Your task to perform on an android device: toggle priority inbox in the gmail app Image 0: 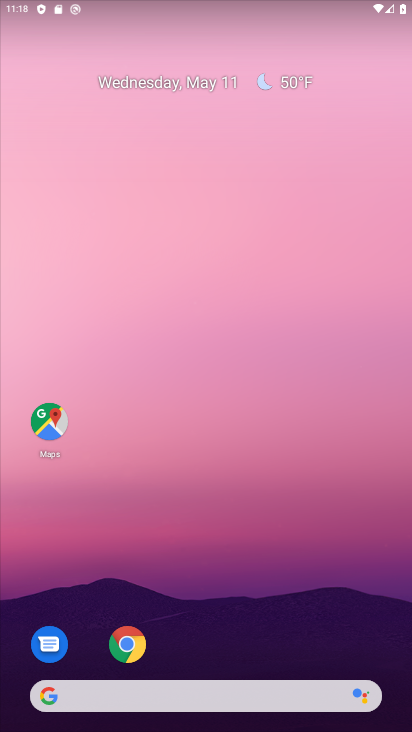
Step 0: drag from (254, 585) to (203, 83)
Your task to perform on an android device: toggle priority inbox in the gmail app Image 1: 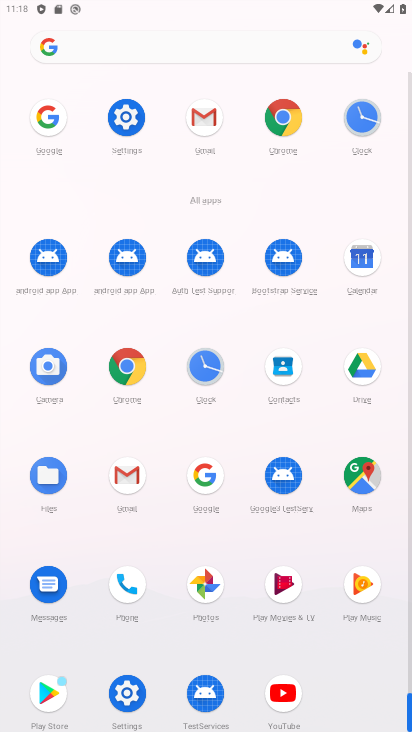
Step 1: click (206, 112)
Your task to perform on an android device: toggle priority inbox in the gmail app Image 2: 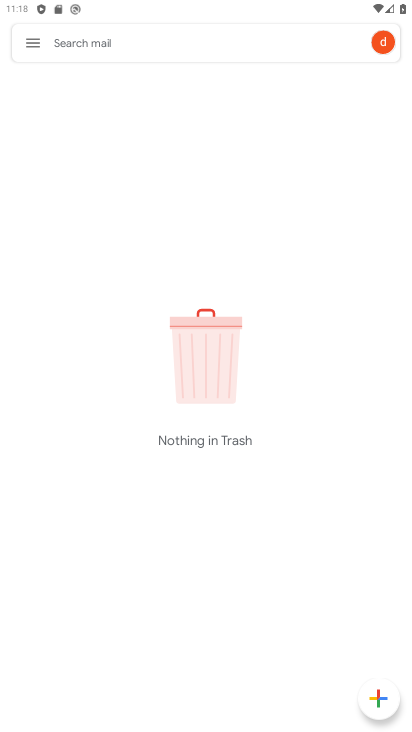
Step 2: click (35, 45)
Your task to perform on an android device: toggle priority inbox in the gmail app Image 3: 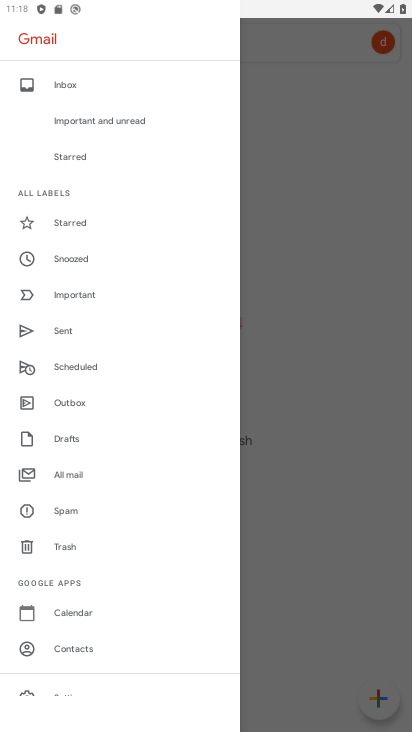
Step 3: drag from (69, 604) to (105, 140)
Your task to perform on an android device: toggle priority inbox in the gmail app Image 4: 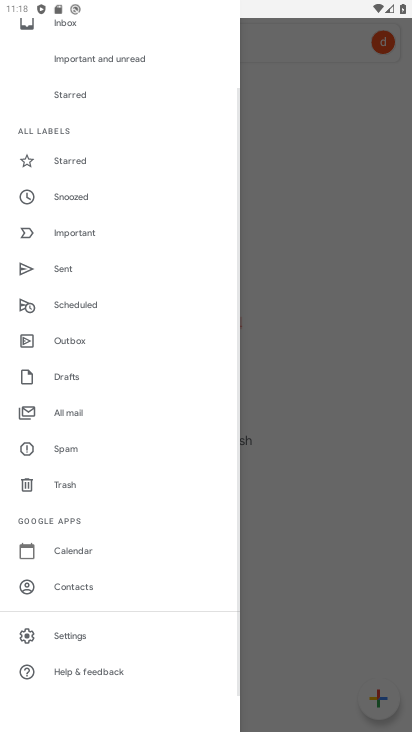
Step 4: click (56, 646)
Your task to perform on an android device: toggle priority inbox in the gmail app Image 5: 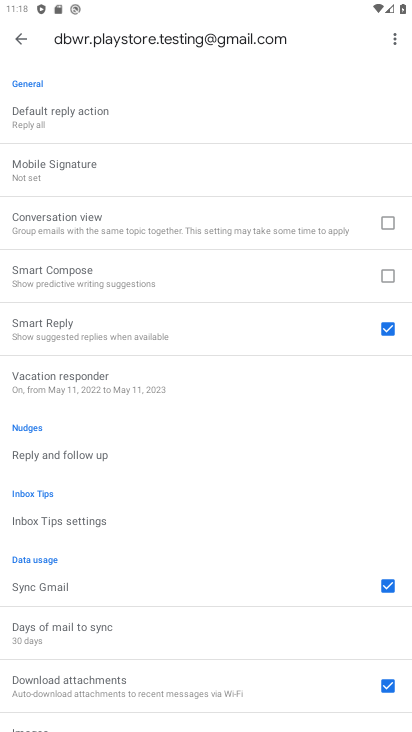
Step 5: drag from (120, 443) to (119, 677)
Your task to perform on an android device: toggle priority inbox in the gmail app Image 6: 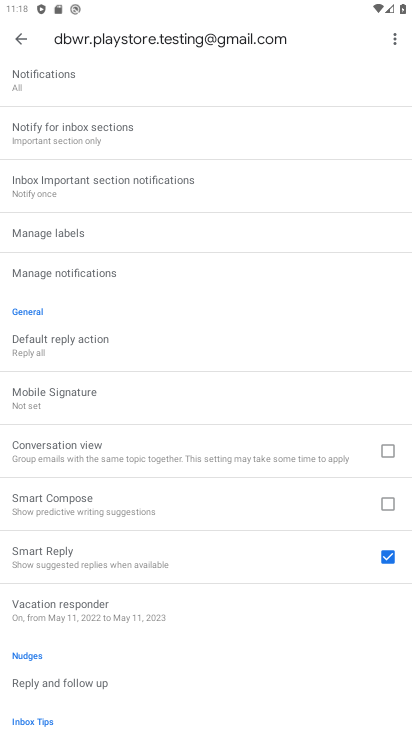
Step 6: drag from (172, 163) to (117, 614)
Your task to perform on an android device: toggle priority inbox in the gmail app Image 7: 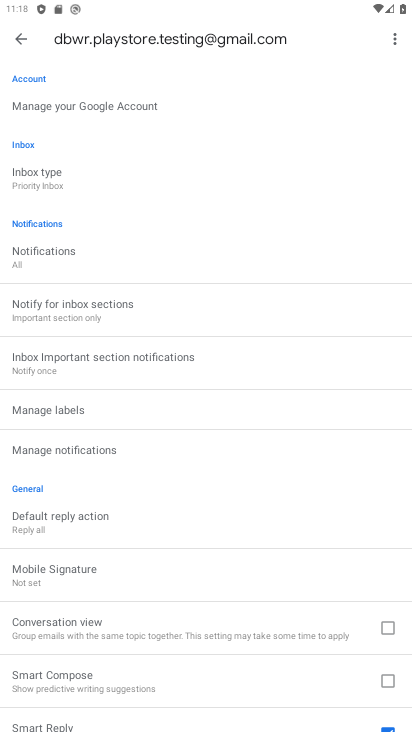
Step 7: click (47, 179)
Your task to perform on an android device: toggle priority inbox in the gmail app Image 8: 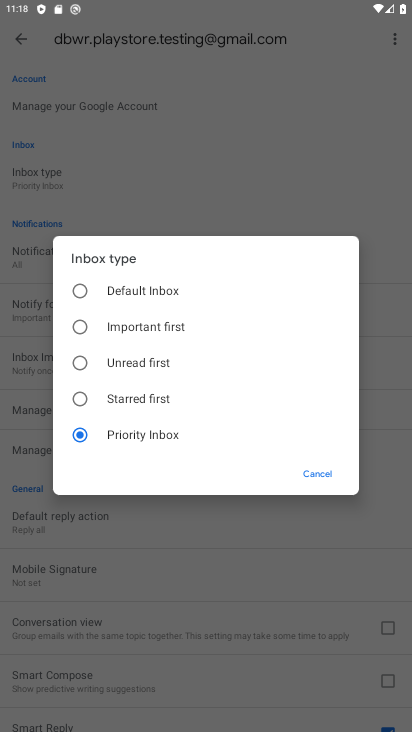
Step 8: click (88, 290)
Your task to perform on an android device: toggle priority inbox in the gmail app Image 9: 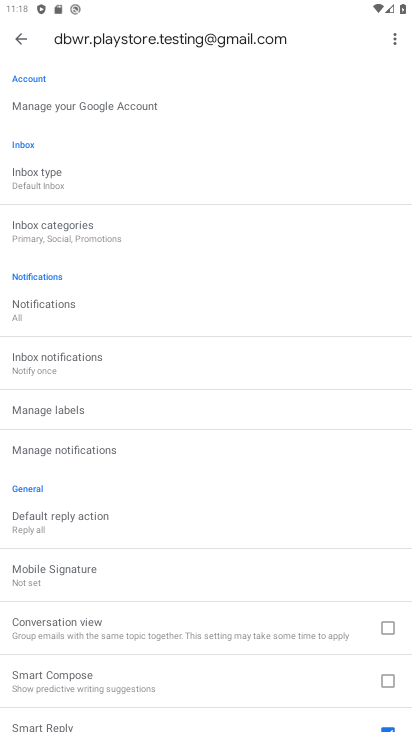
Step 9: task complete